Your task to perform on an android device: turn notification dots off Image 0: 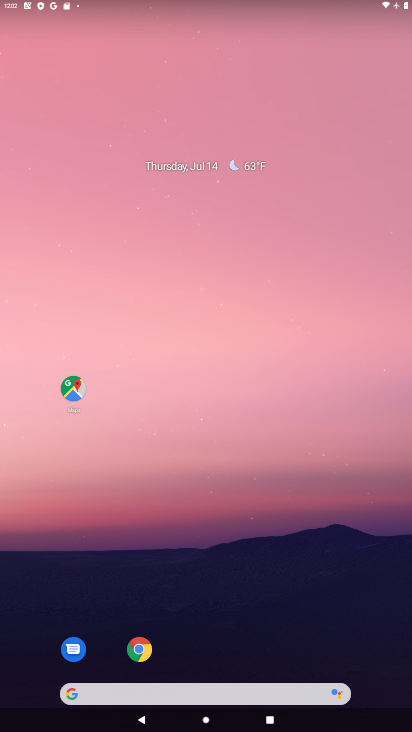
Step 0: drag from (244, 626) to (255, 295)
Your task to perform on an android device: turn notification dots off Image 1: 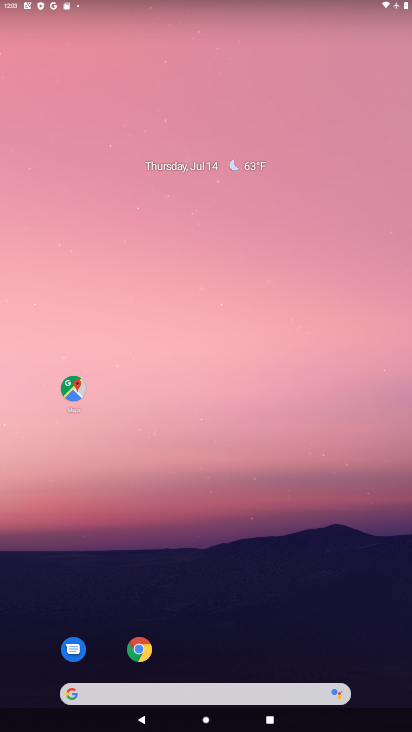
Step 1: drag from (236, 656) to (256, 256)
Your task to perform on an android device: turn notification dots off Image 2: 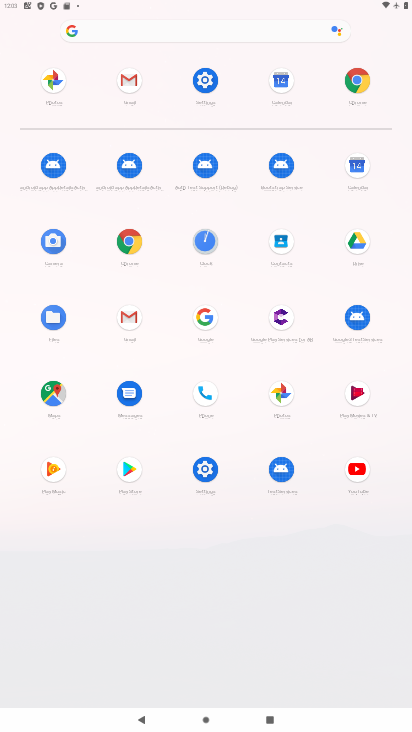
Step 2: click (195, 69)
Your task to perform on an android device: turn notification dots off Image 3: 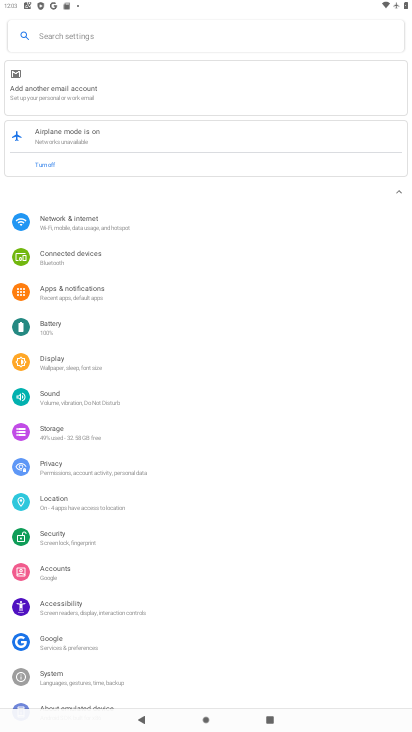
Step 3: click (155, 33)
Your task to perform on an android device: turn notification dots off Image 4: 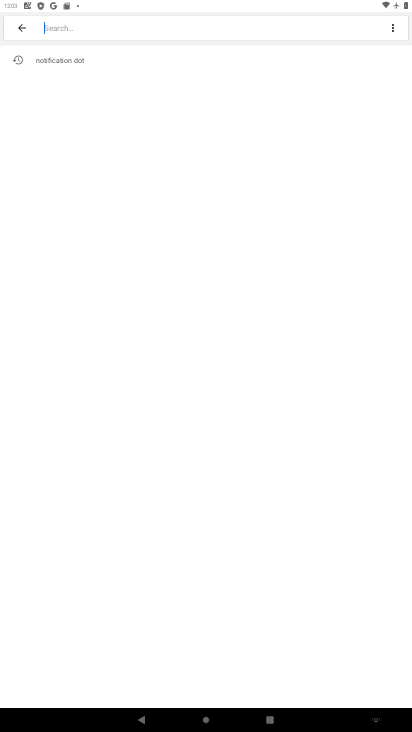
Step 4: click (74, 58)
Your task to perform on an android device: turn notification dots off Image 5: 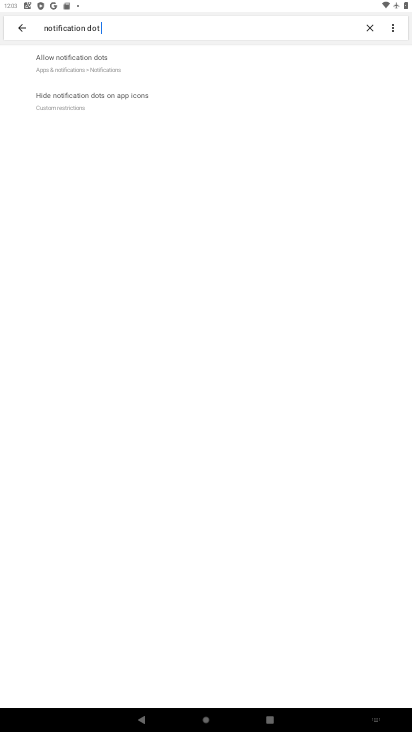
Step 5: click (106, 48)
Your task to perform on an android device: turn notification dots off Image 6: 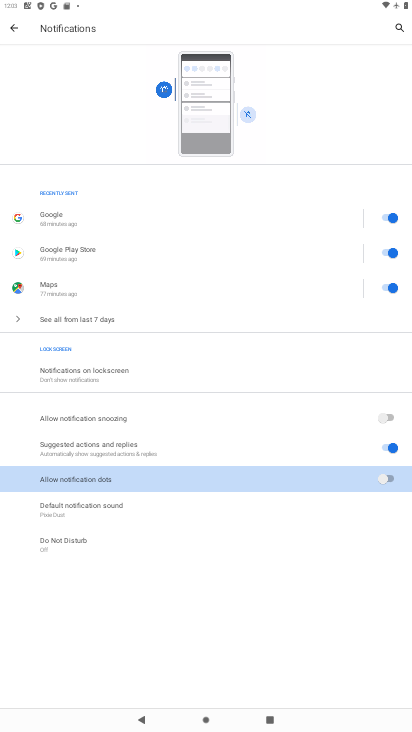
Step 6: task complete